Your task to perform on an android device: Clear all items from cart on bestbuy.com. Search for acer nitro on bestbuy.com, select the first entry, and add it to the cart. Image 0: 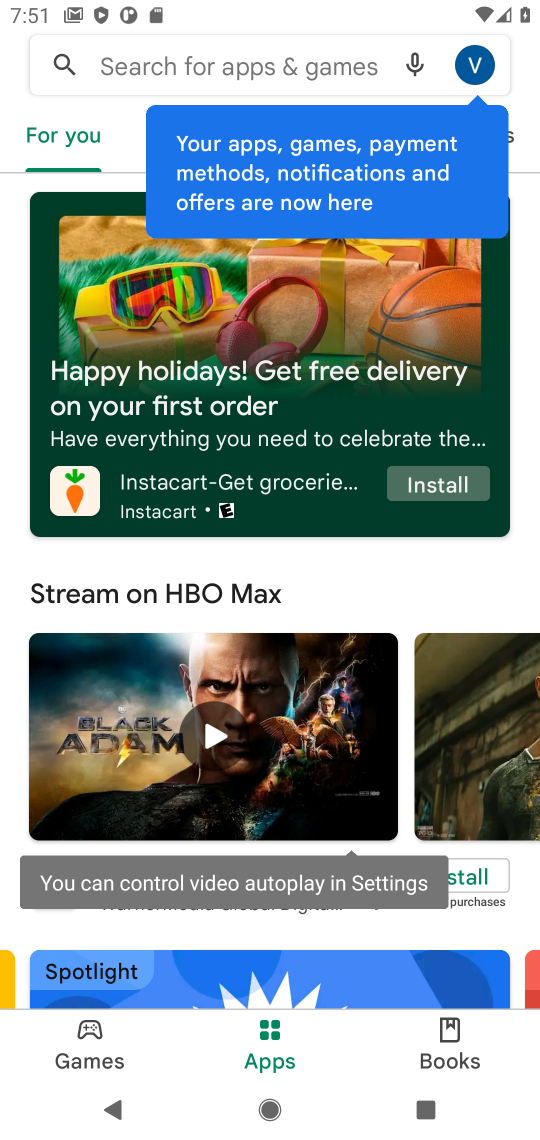
Step 0: press home button
Your task to perform on an android device: Clear all items from cart on bestbuy.com. Search for acer nitro on bestbuy.com, select the first entry, and add it to the cart. Image 1: 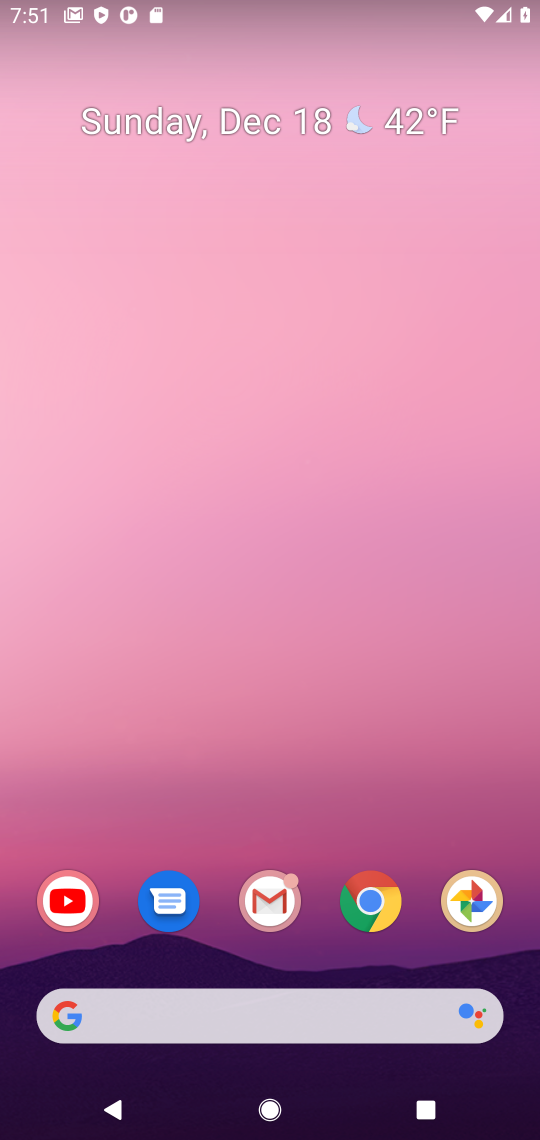
Step 1: click (392, 888)
Your task to perform on an android device: Clear all items from cart on bestbuy.com. Search for acer nitro on bestbuy.com, select the first entry, and add it to the cart. Image 2: 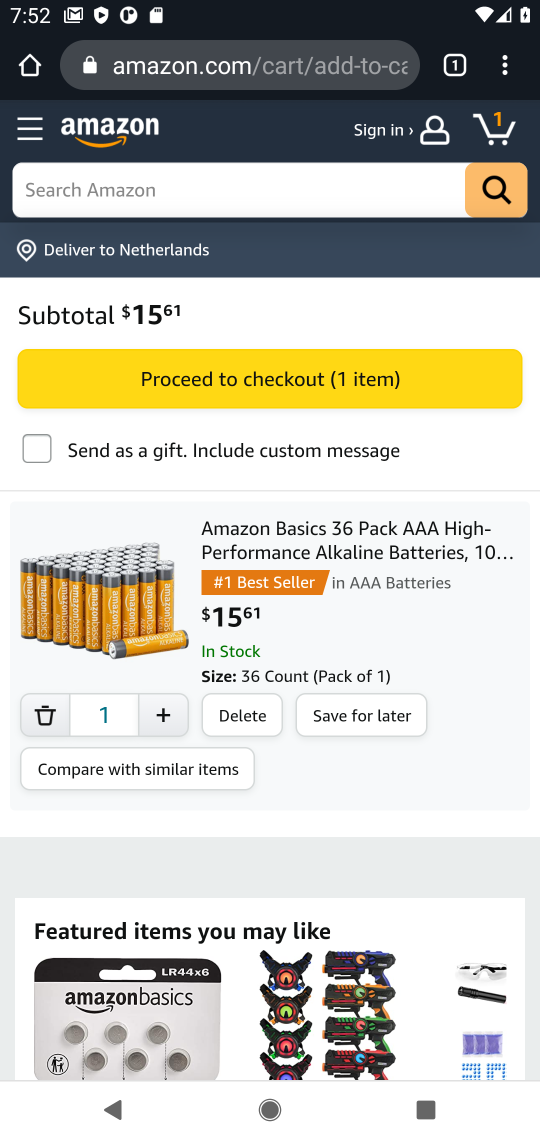
Step 2: click (185, 80)
Your task to perform on an android device: Clear all items from cart on bestbuy.com. Search for acer nitro on bestbuy.com, select the first entry, and add it to the cart. Image 3: 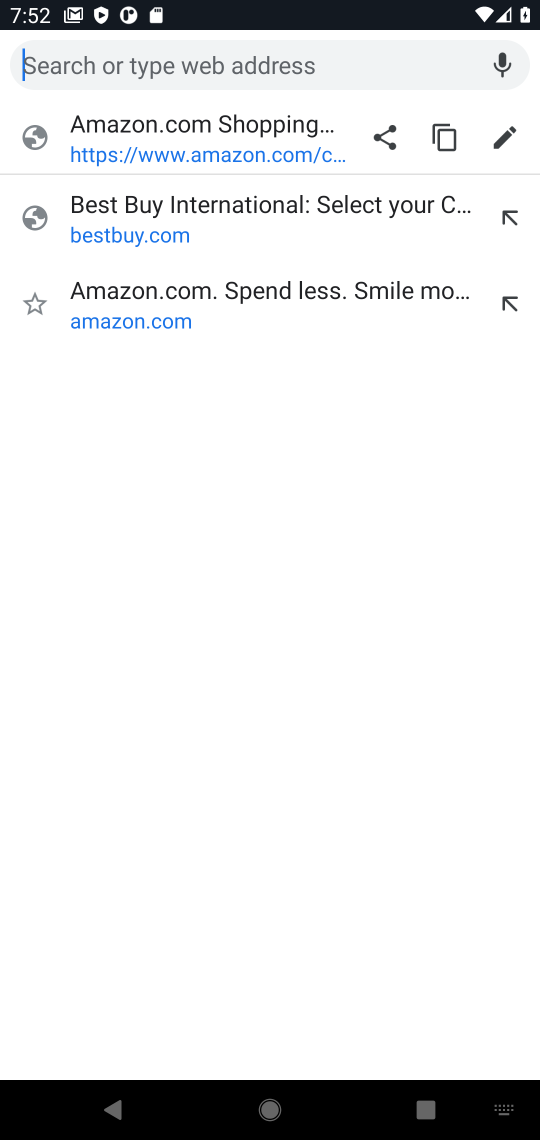
Step 3: type "bestbuy"
Your task to perform on an android device: Clear all items from cart on bestbuy.com. Search for acer nitro on bestbuy.com, select the first entry, and add it to the cart. Image 4: 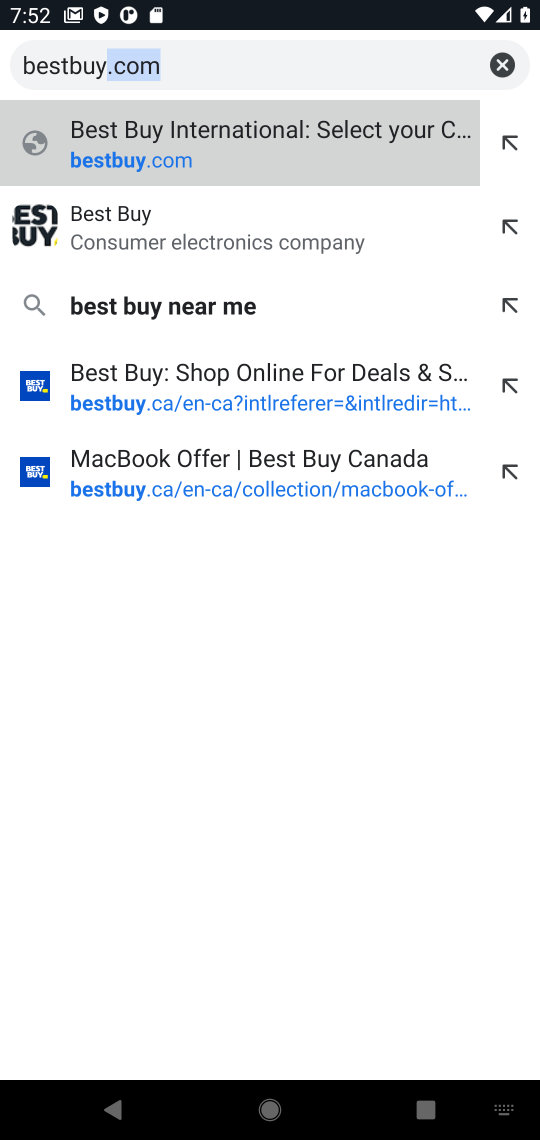
Step 4: click (185, 127)
Your task to perform on an android device: Clear all items from cart on bestbuy.com. Search for acer nitro on bestbuy.com, select the first entry, and add it to the cart. Image 5: 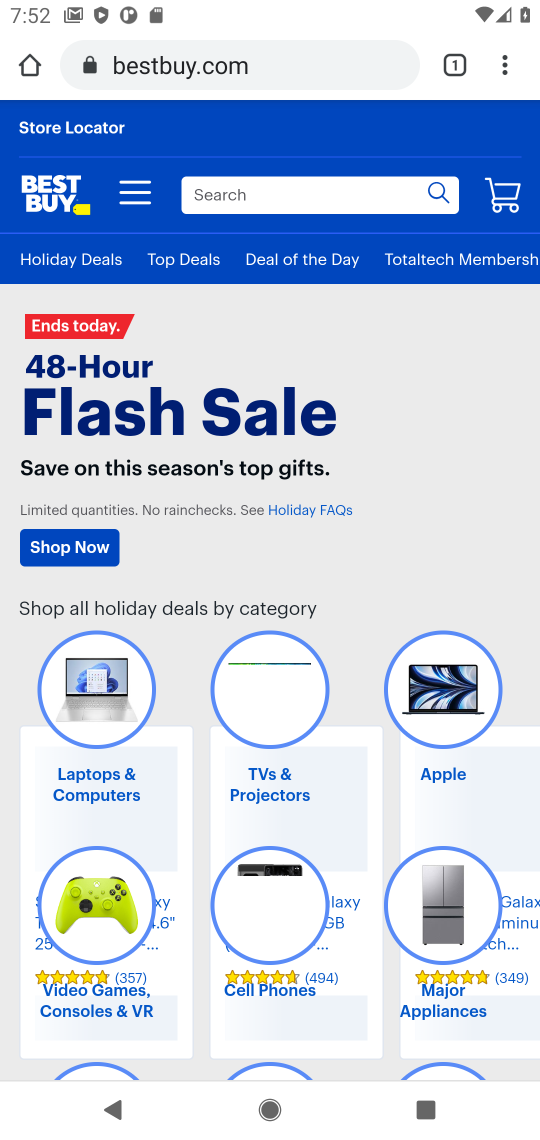
Step 5: click (269, 205)
Your task to perform on an android device: Clear all items from cart on bestbuy.com. Search for acer nitro on bestbuy.com, select the first entry, and add it to the cart. Image 6: 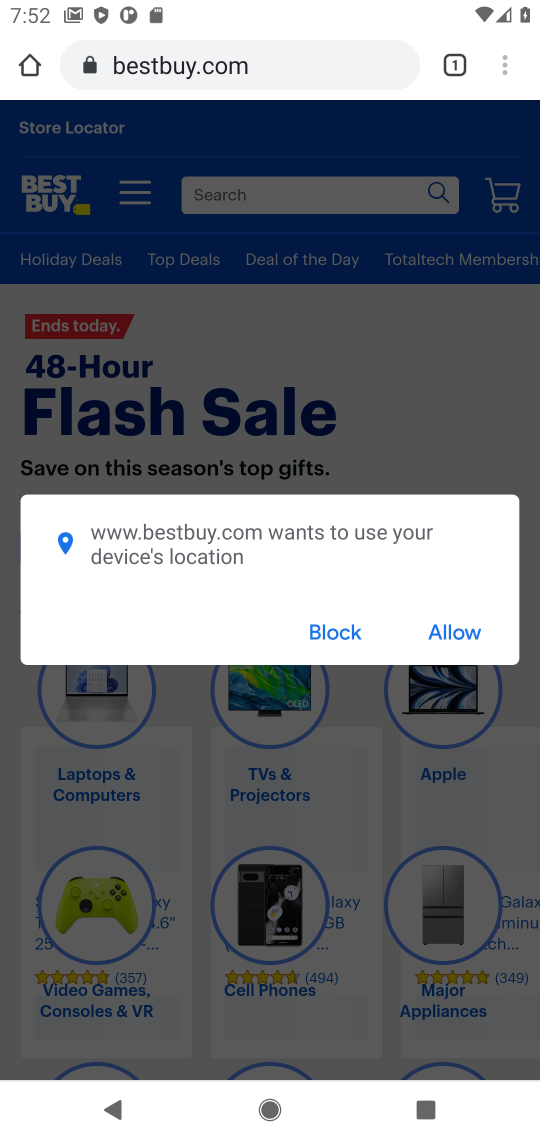
Step 6: type "acer nitro"
Your task to perform on an android device: Clear all items from cart on bestbuy.com. Search for acer nitro on bestbuy.com, select the first entry, and add it to the cart. Image 7: 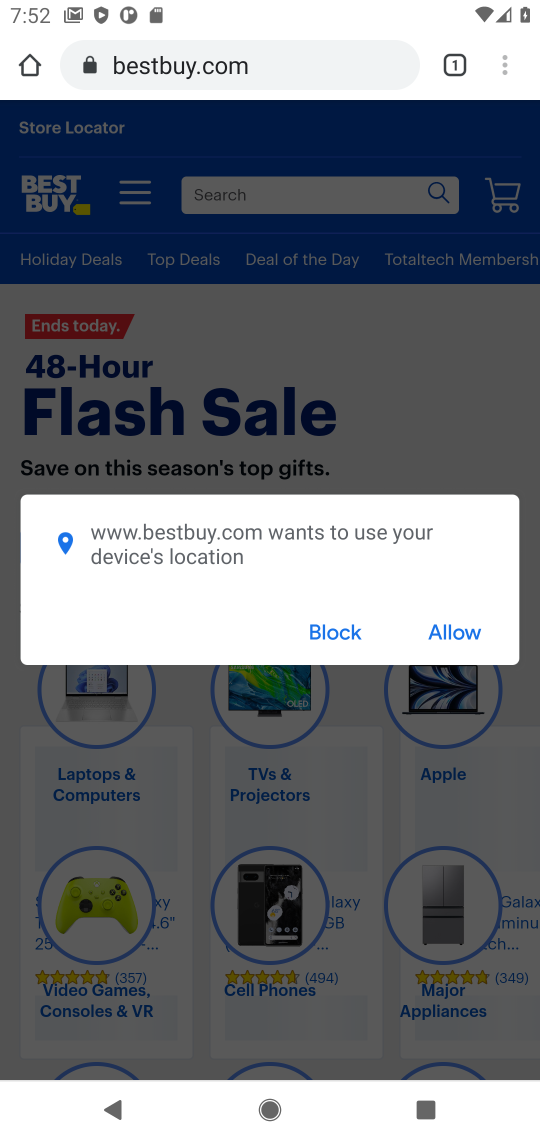
Step 7: click (464, 639)
Your task to perform on an android device: Clear all items from cart on bestbuy.com. Search for acer nitro on bestbuy.com, select the first entry, and add it to the cart. Image 8: 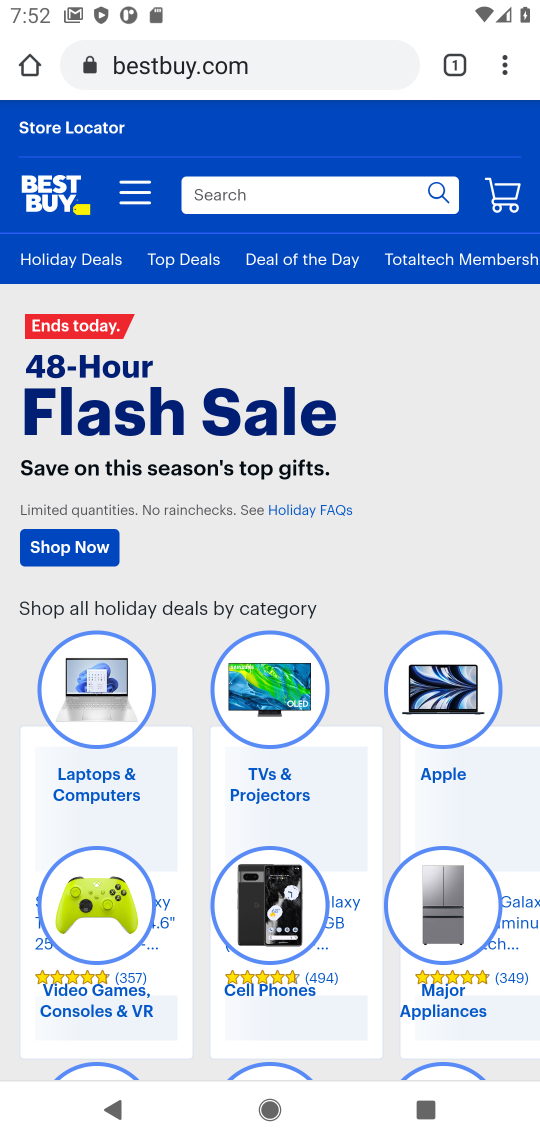
Step 8: click (285, 177)
Your task to perform on an android device: Clear all items from cart on bestbuy.com. Search for acer nitro on bestbuy.com, select the first entry, and add it to the cart. Image 9: 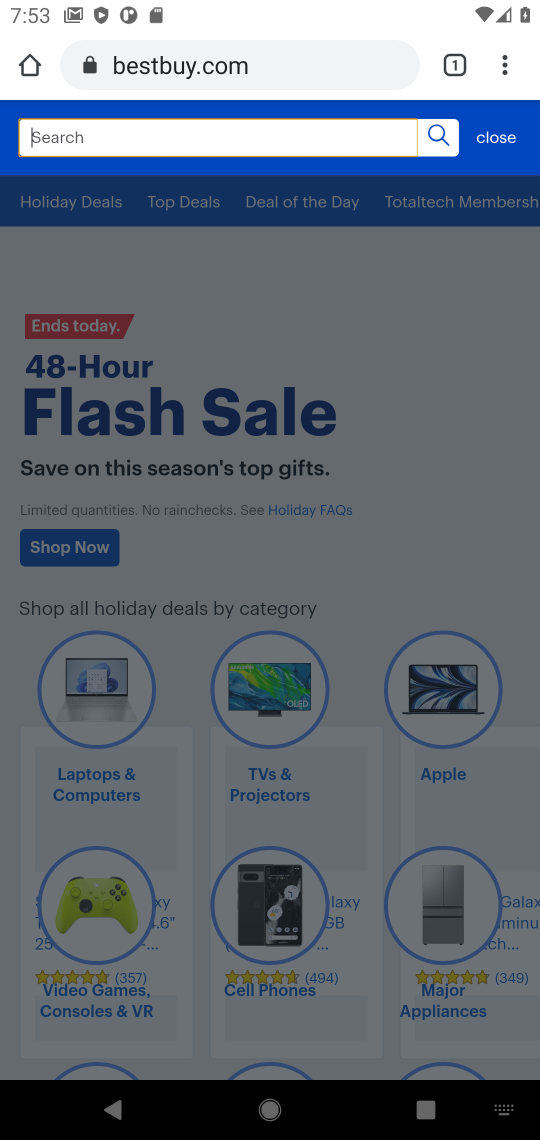
Step 9: type "acer nitro"
Your task to perform on an android device: Clear all items from cart on bestbuy.com. Search for acer nitro on bestbuy.com, select the first entry, and add it to the cart. Image 10: 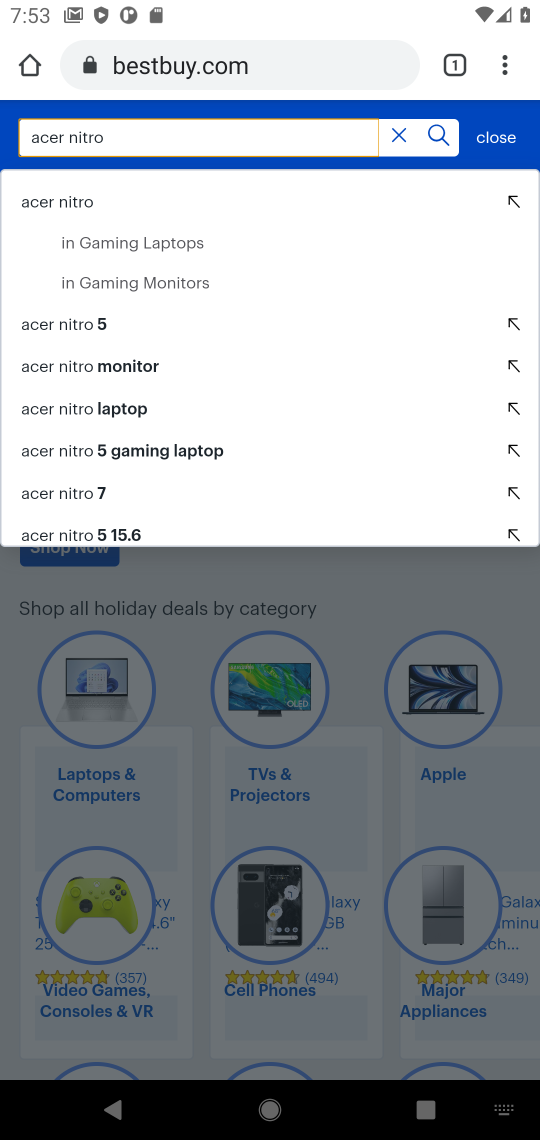
Step 10: click (445, 144)
Your task to perform on an android device: Clear all items from cart on bestbuy.com. Search for acer nitro on bestbuy.com, select the first entry, and add it to the cart. Image 11: 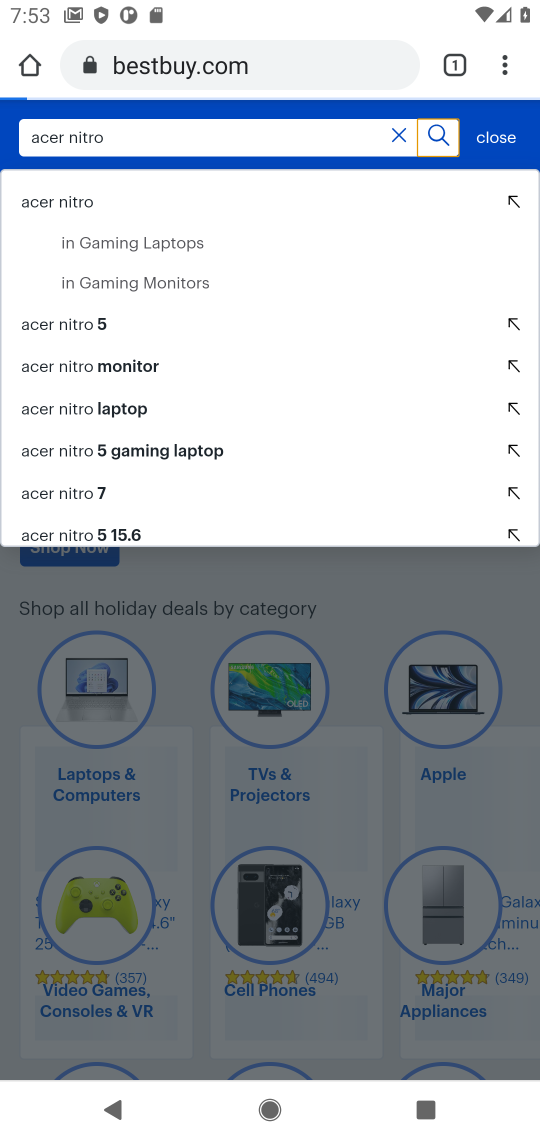
Step 11: click (198, 212)
Your task to perform on an android device: Clear all items from cart on bestbuy.com. Search for acer nitro on bestbuy.com, select the first entry, and add it to the cart. Image 12: 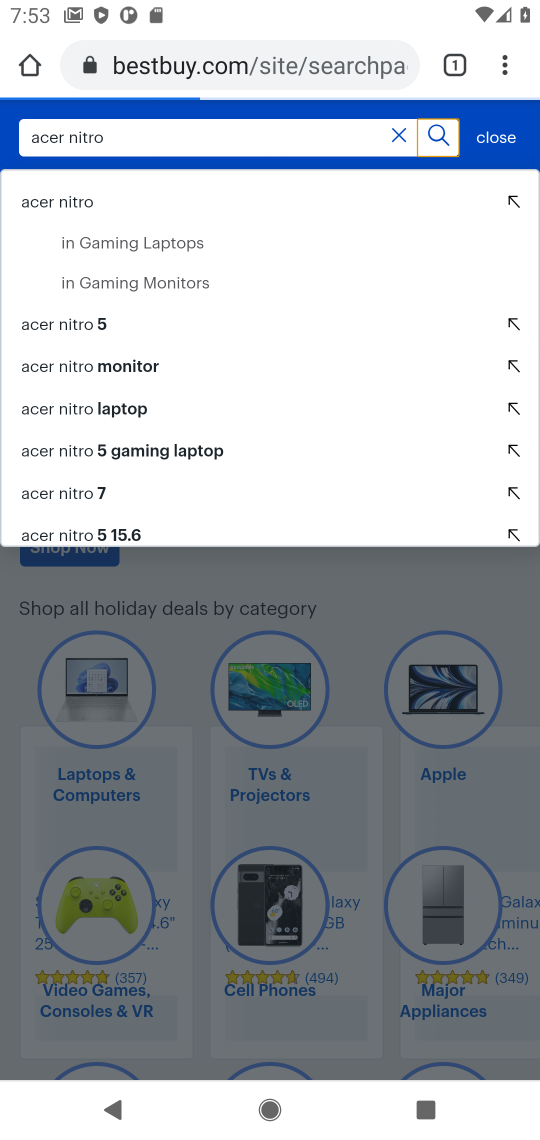
Step 12: click (10, 216)
Your task to perform on an android device: Clear all items from cart on bestbuy.com. Search for acer nitro on bestbuy.com, select the first entry, and add it to the cart. Image 13: 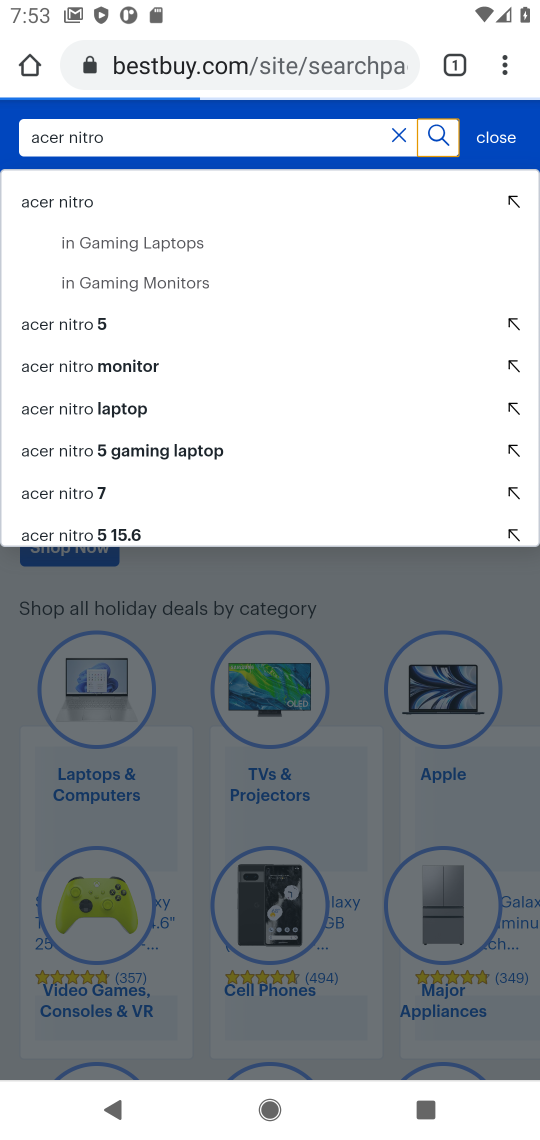
Step 13: click (40, 202)
Your task to perform on an android device: Clear all items from cart on bestbuy.com. Search for acer nitro on bestbuy.com, select the first entry, and add it to the cart. Image 14: 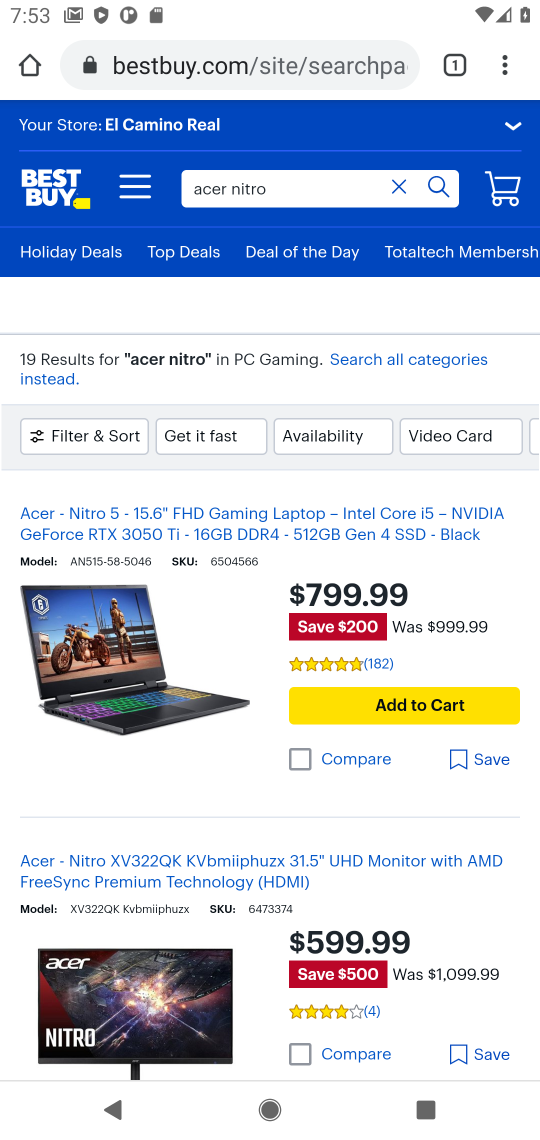
Step 14: click (369, 587)
Your task to perform on an android device: Clear all items from cart on bestbuy.com. Search for acer nitro on bestbuy.com, select the first entry, and add it to the cart. Image 15: 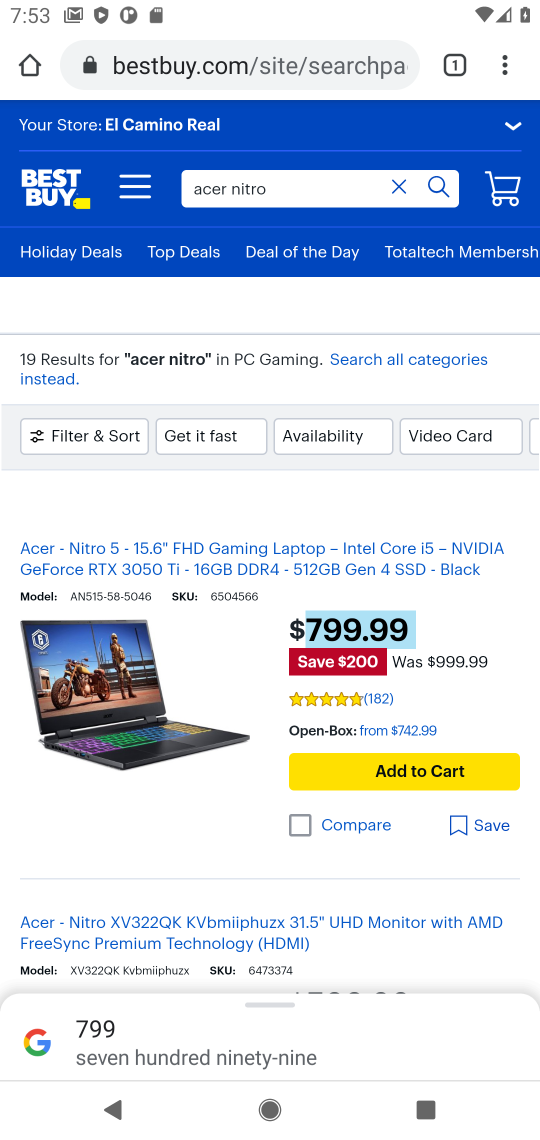
Step 15: click (368, 832)
Your task to perform on an android device: Clear all items from cart on bestbuy.com. Search for acer nitro on bestbuy.com, select the first entry, and add it to the cart. Image 16: 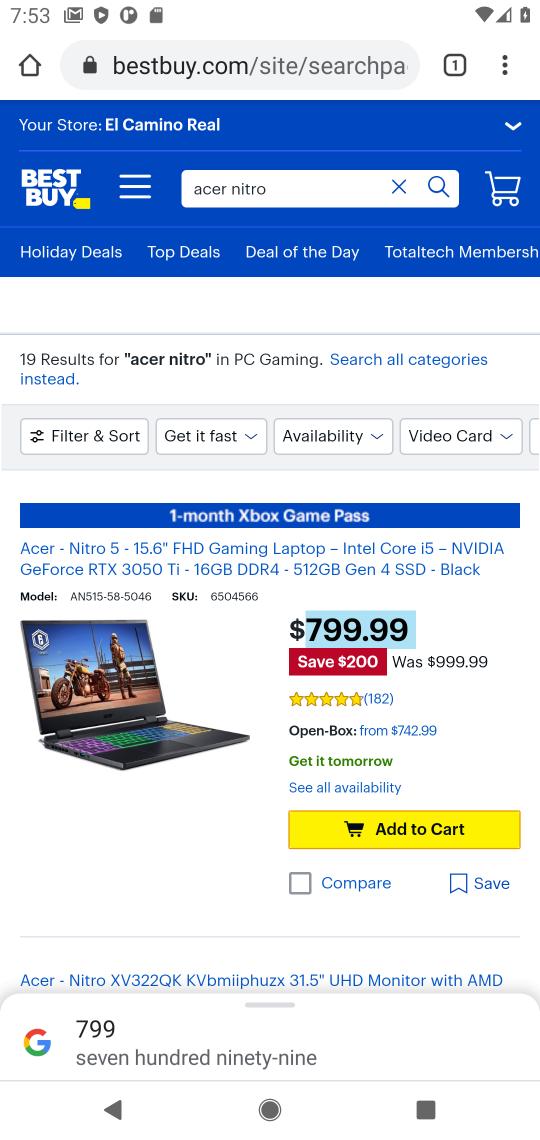
Step 16: click (377, 819)
Your task to perform on an android device: Clear all items from cart on bestbuy.com. Search for acer nitro on bestbuy.com, select the first entry, and add it to the cart. Image 17: 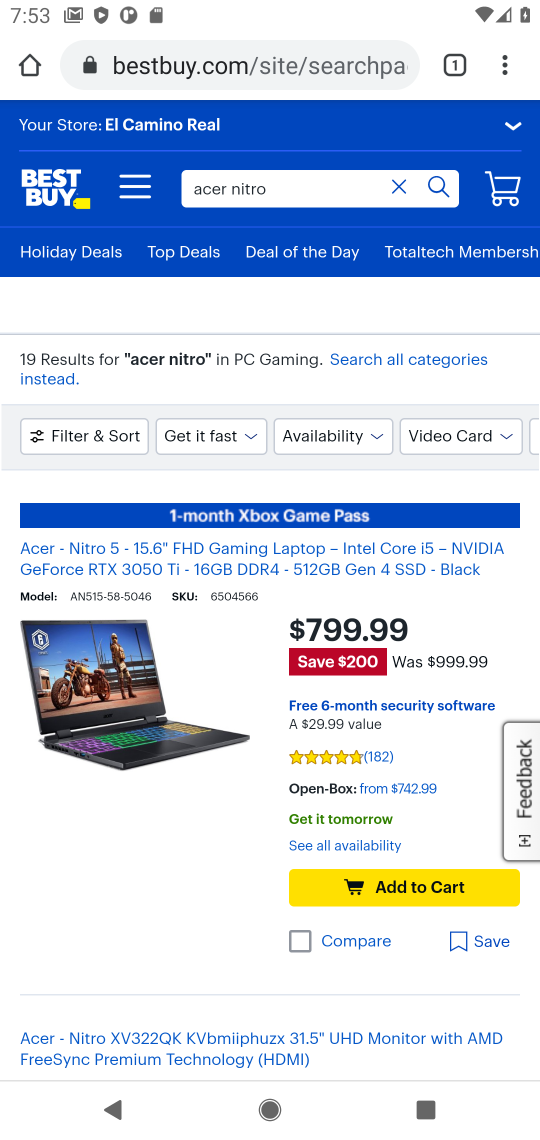
Step 17: task complete